Your task to perform on an android device: Open the phone app and click the voicemail tab. Image 0: 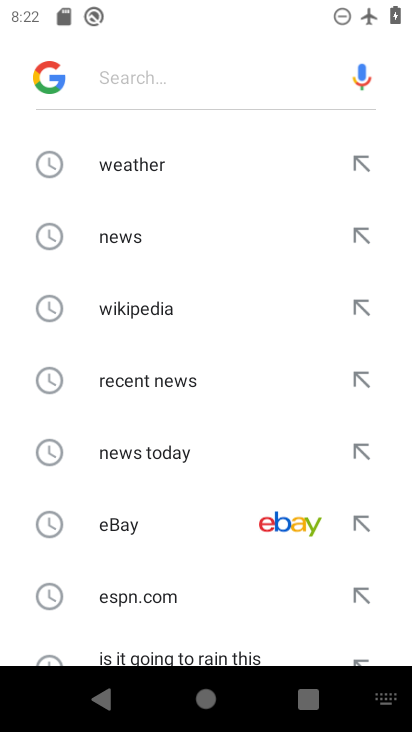
Step 0: press home button
Your task to perform on an android device: Open the phone app and click the voicemail tab. Image 1: 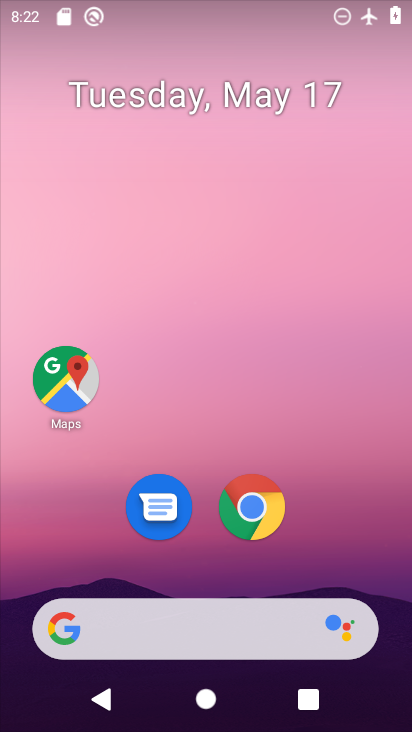
Step 1: drag from (346, 550) to (336, 19)
Your task to perform on an android device: Open the phone app and click the voicemail tab. Image 2: 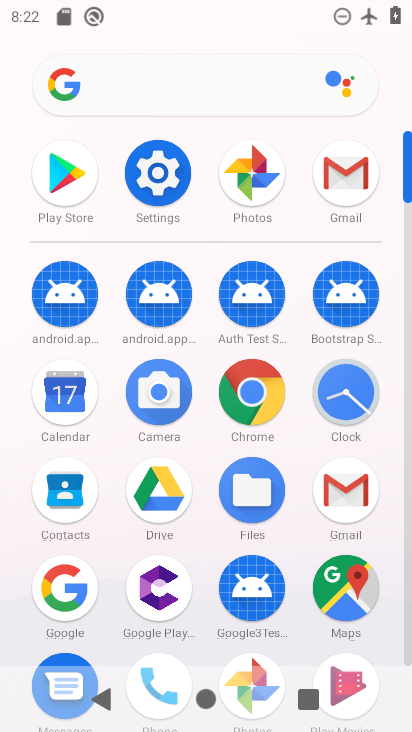
Step 2: click (405, 457)
Your task to perform on an android device: Open the phone app and click the voicemail tab. Image 3: 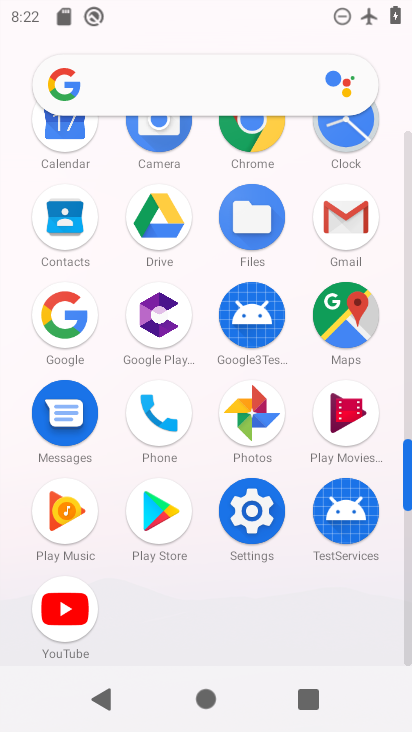
Step 3: click (155, 418)
Your task to perform on an android device: Open the phone app and click the voicemail tab. Image 4: 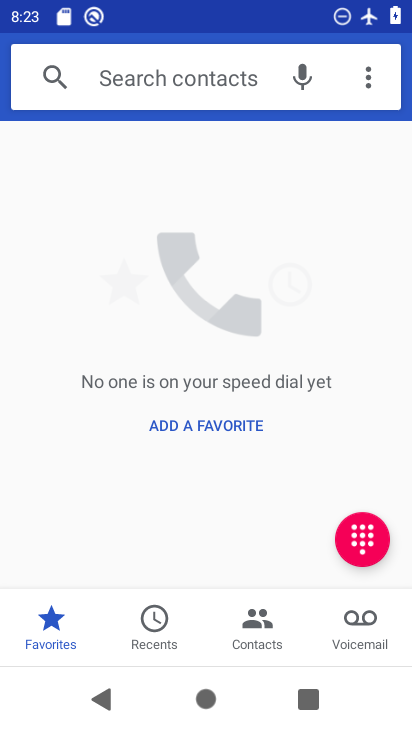
Step 4: click (356, 634)
Your task to perform on an android device: Open the phone app and click the voicemail tab. Image 5: 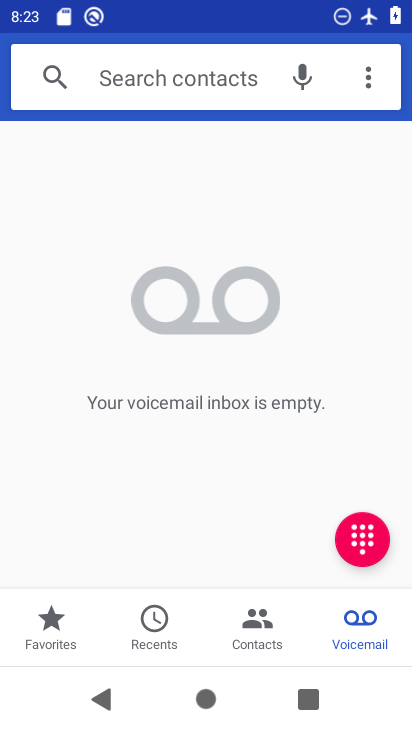
Step 5: task complete